Your task to perform on an android device: Go to Reddit.com Image 0: 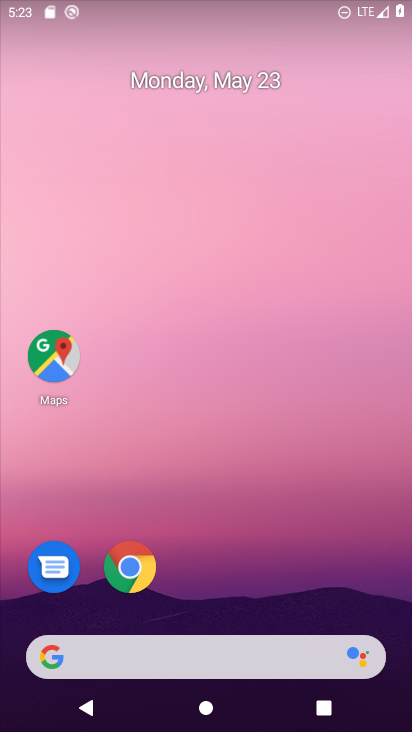
Step 0: click (128, 569)
Your task to perform on an android device: Go to Reddit.com Image 1: 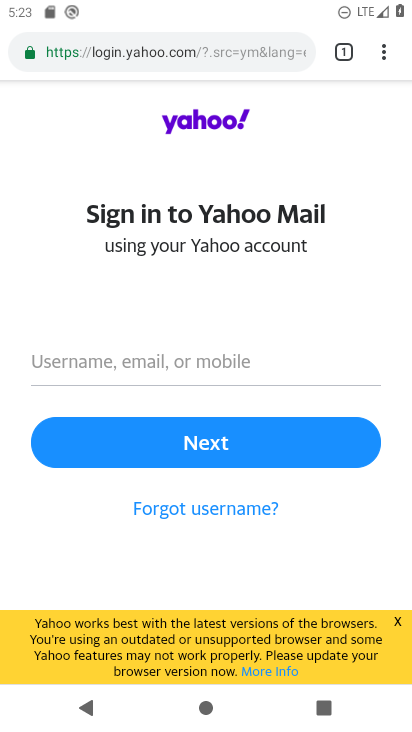
Step 1: click (247, 59)
Your task to perform on an android device: Go to Reddit.com Image 2: 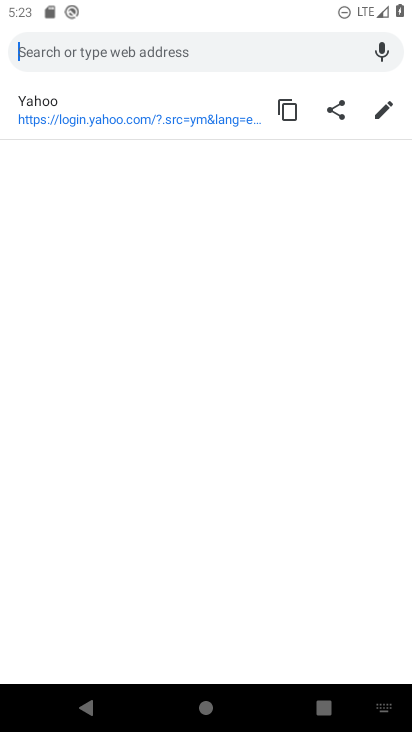
Step 2: type "Reddit.com"
Your task to perform on an android device: Go to Reddit.com Image 3: 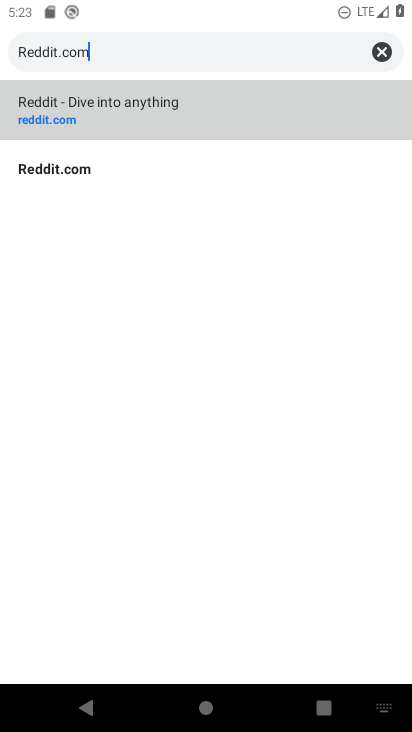
Step 3: type ""
Your task to perform on an android device: Go to Reddit.com Image 4: 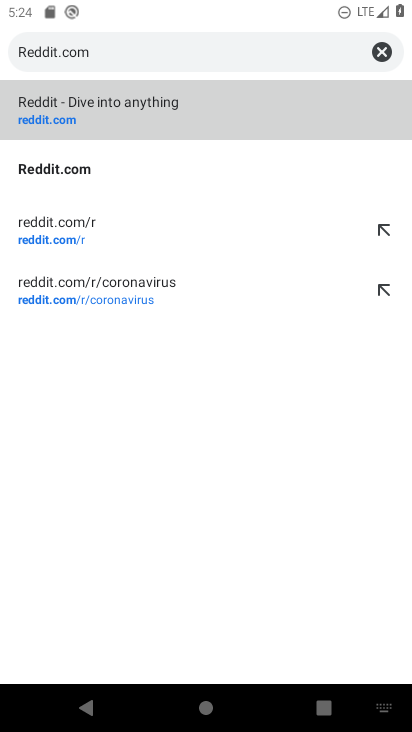
Step 4: click (65, 174)
Your task to perform on an android device: Go to Reddit.com Image 5: 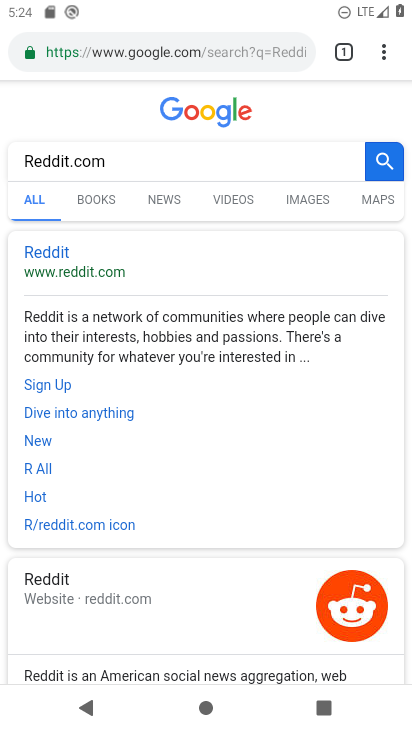
Step 5: click (87, 273)
Your task to perform on an android device: Go to Reddit.com Image 6: 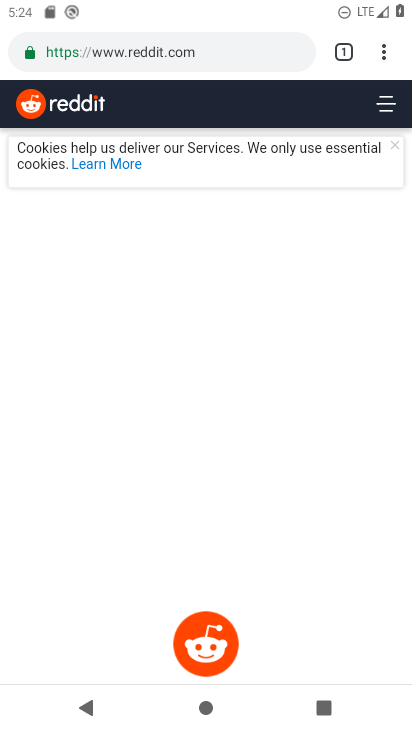
Step 6: task complete